Your task to perform on an android device: open app "Messenger Lite" (install if not already installed) Image 0: 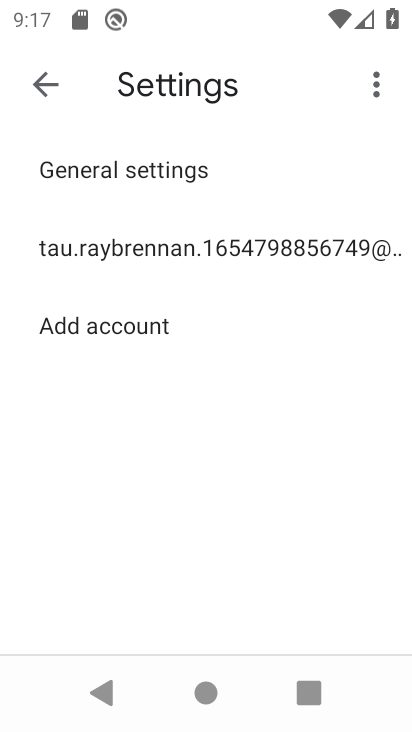
Step 0: press home button
Your task to perform on an android device: open app "Messenger Lite" (install if not already installed) Image 1: 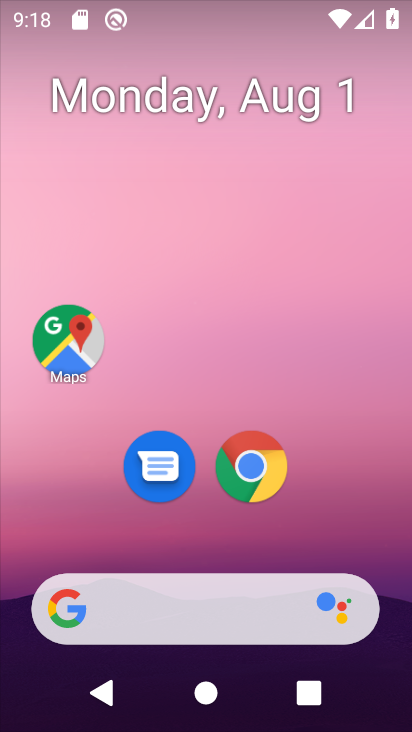
Step 1: drag from (234, 675) to (240, 133)
Your task to perform on an android device: open app "Messenger Lite" (install if not already installed) Image 2: 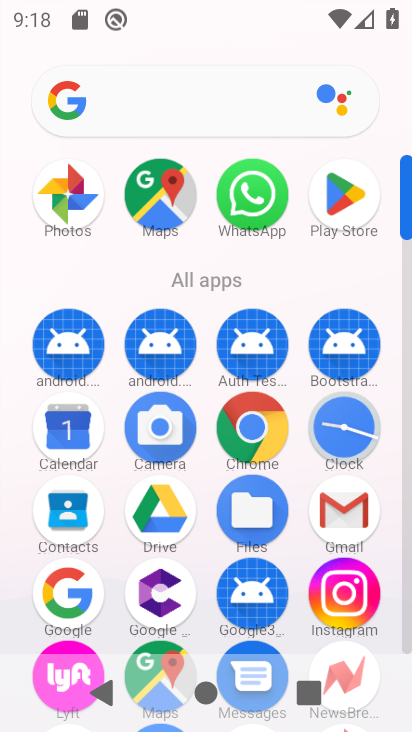
Step 2: drag from (297, 619) to (305, 289)
Your task to perform on an android device: open app "Messenger Lite" (install if not already installed) Image 3: 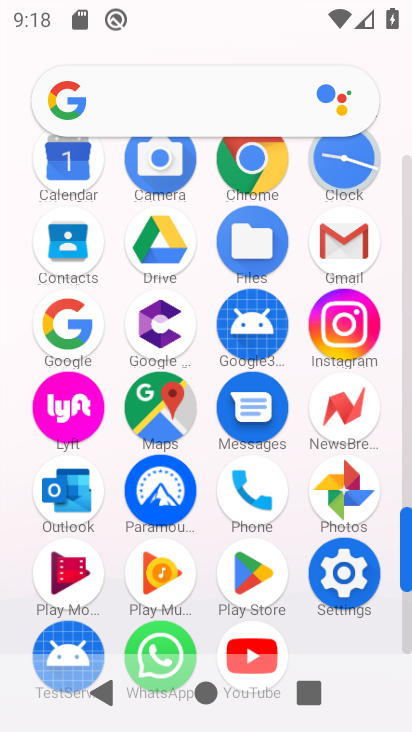
Step 3: click (252, 572)
Your task to perform on an android device: open app "Messenger Lite" (install if not already installed) Image 4: 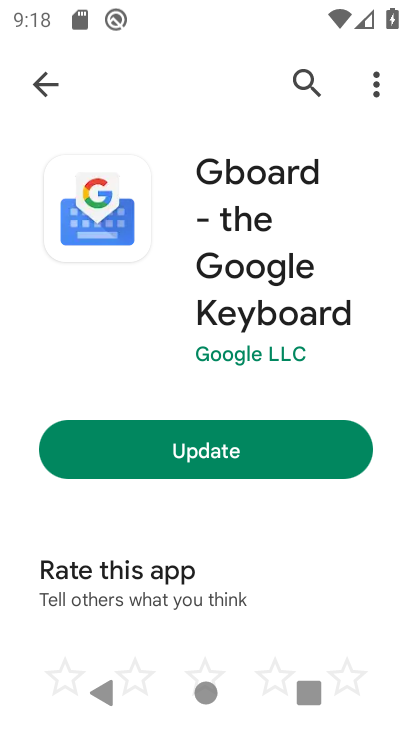
Step 4: click (306, 85)
Your task to perform on an android device: open app "Messenger Lite" (install if not already installed) Image 5: 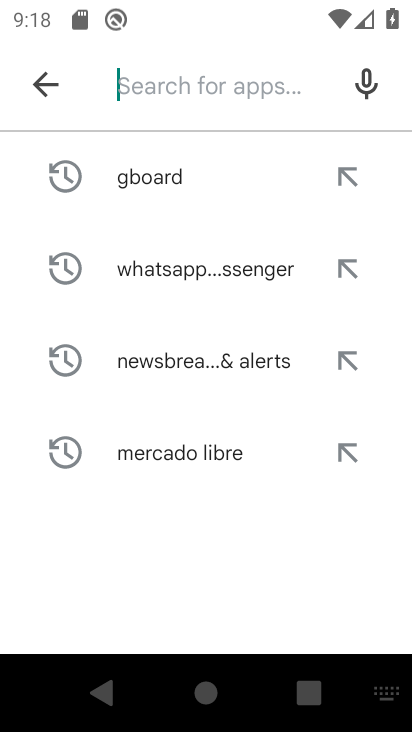
Step 5: type "Messenger Lite "
Your task to perform on an android device: open app "Messenger Lite" (install if not already installed) Image 6: 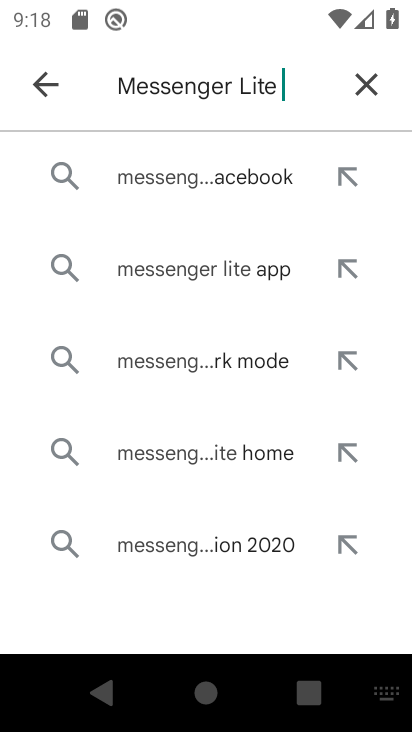
Step 6: click (198, 179)
Your task to perform on an android device: open app "Messenger Lite" (install if not already installed) Image 7: 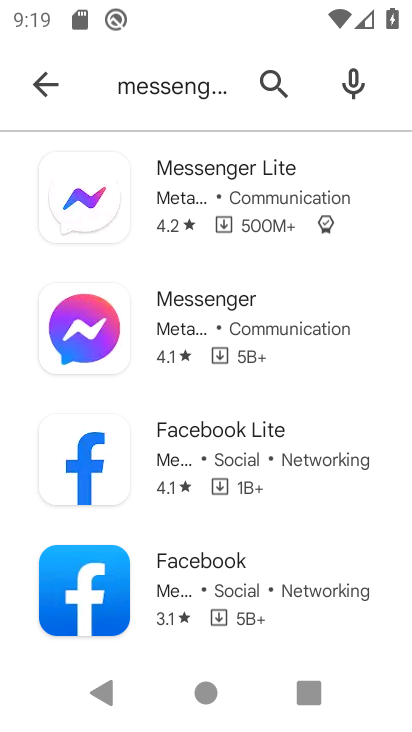
Step 7: click (198, 179)
Your task to perform on an android device: open app "Messenger Lite" (install if not already installed) Image 8: 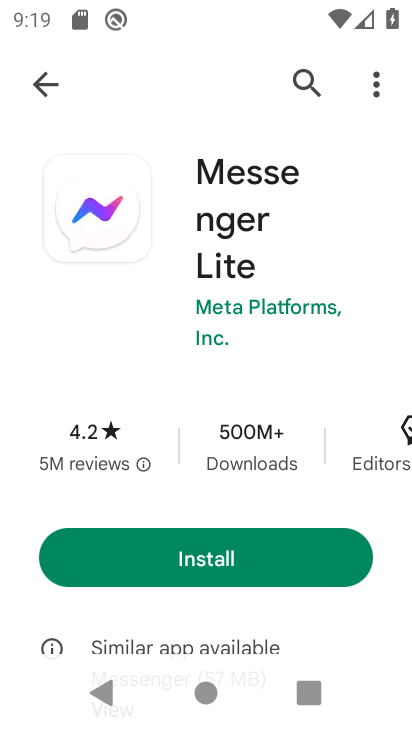
Step 8: click (202, 554)
Your task to perform on an android device: open app "Messenger Lite" (install if not already installed) Image 9: 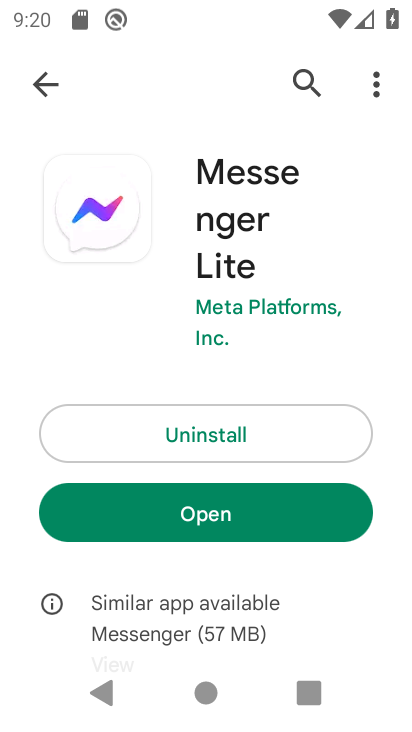
Step 9: task complete